Your task to perform on an android device: turn on translation in the chrome app Image 0: 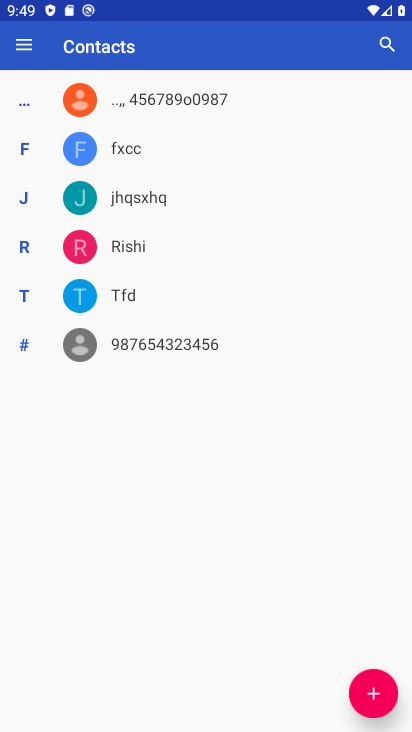
Step 0: press home button
Your task to perform on an android device: turn on translation in the chrome app Image 1: 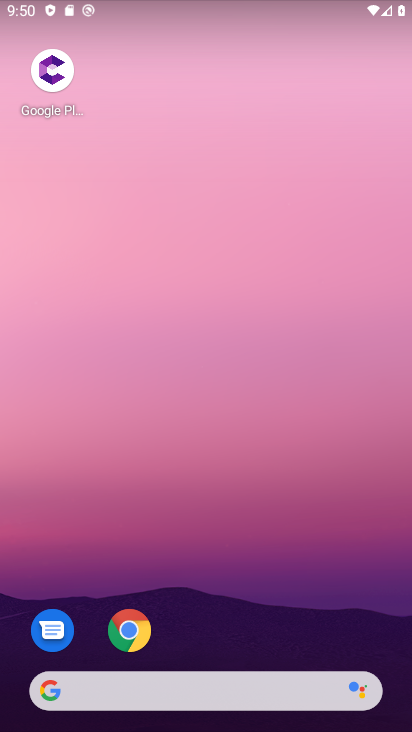
Step 1: click (142, 630)
Your task to perform on an android device: turn on translation in the chrome app Image 2: 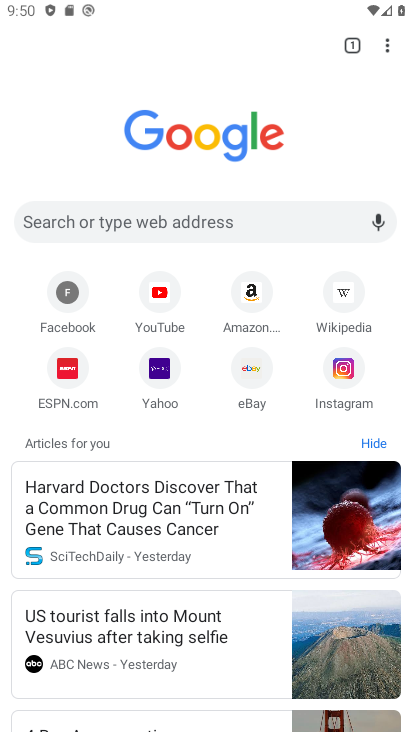
Step 2: click (386, 47)
Your task to perform on an android device: turn on translation in the chrome app Image 3: 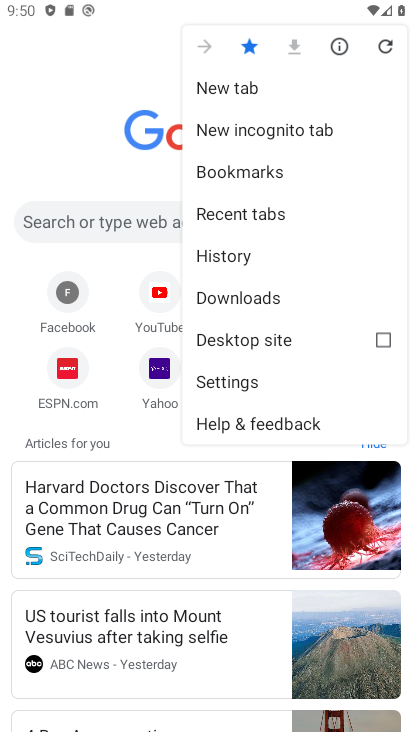
Step 3: click (305, 370)
Your task to perform on an android device: turn on translation in the chrome app Image 4: 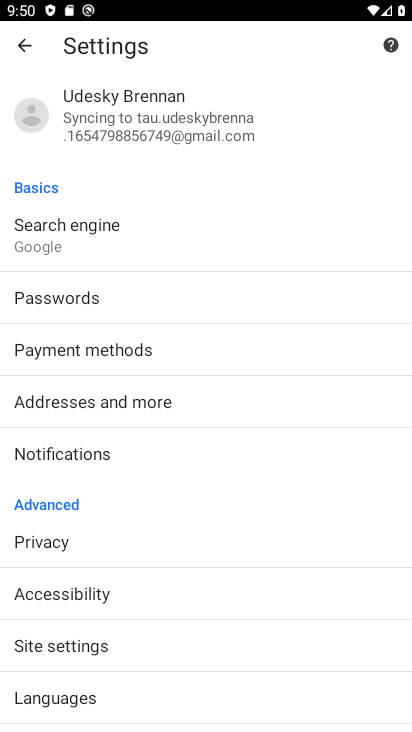
Step 4: click (99, 692)
Your task to perform on an android device: turn on translation in the chrome app Image 5: 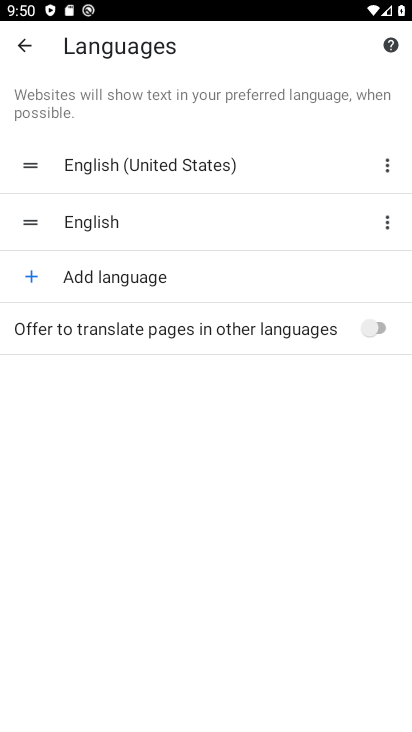
Step 5: click (367, 313)
Your task to perform on an android device: turn on translation in the chrome app Image 6: 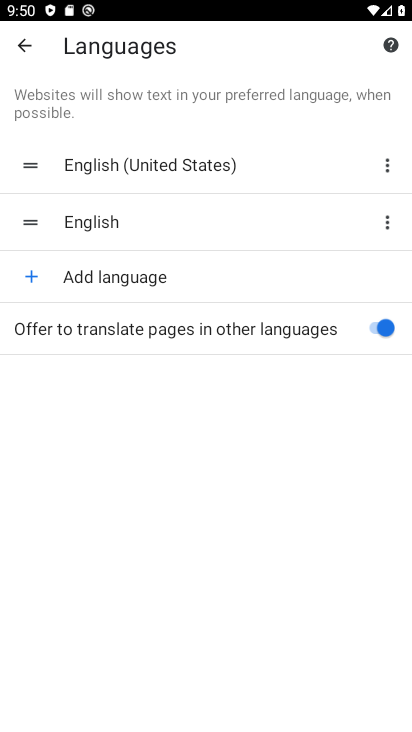
Step 6: task complete